Your task to perform on an android device: turn on translation in the chrome app Image 0: 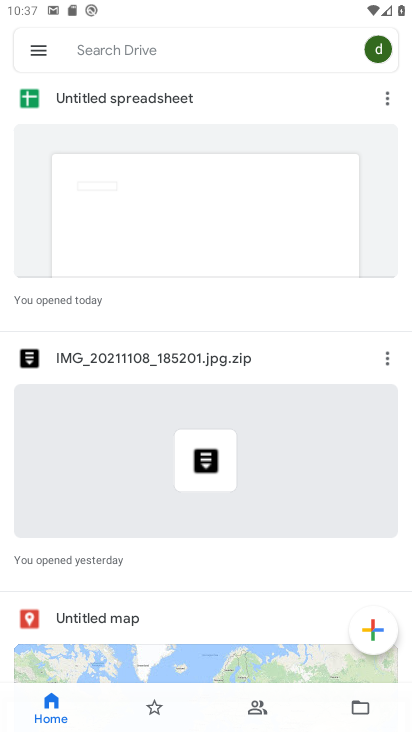
Step 0: press home button
Your task to perform on an android device: turn on translation in the chrome app Image 1: 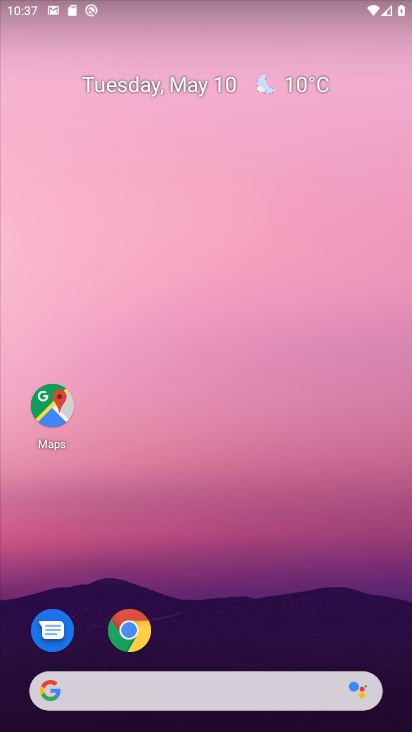
Step 1: click (130, 627)
Your task to perform on an android device: turn on translation in the chrome app Image 2: 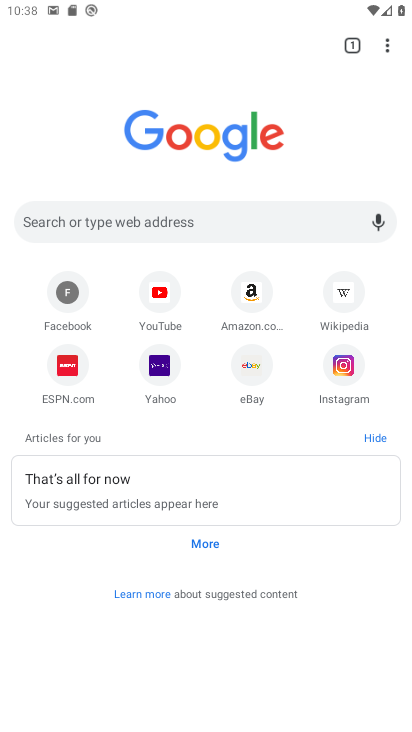
Step 2: click (388, 46)
Your task to perform on an android device: turn on translation in the chrome app Image 3: 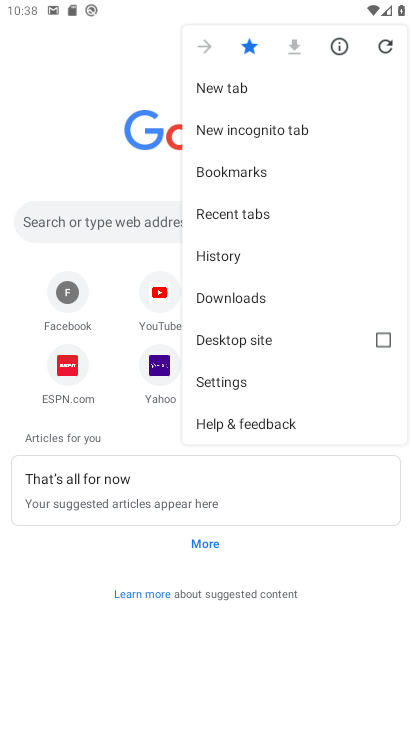
Step 3: click (245, 378)
Your task to perform on an android device: turn on translation in the chrome app Image 4: 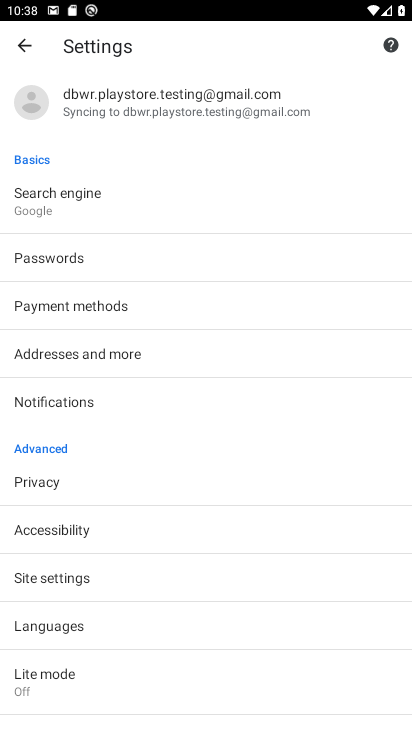
Step 4: click (86, 627)
Your task to perform on an android device: turn on translation in the chrome app Image 5: 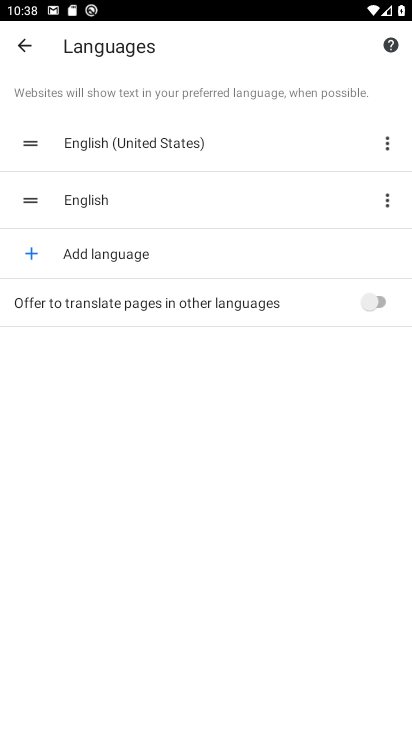
Step 5: click (378, 295)
Your task to perform on an android device: turn on translation in the chrome app Image 6: 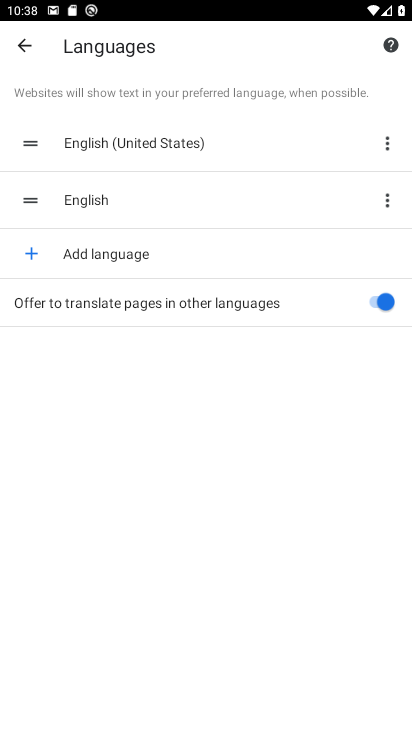
Step 6: task complete